Your task to perform on an android device: stop showing notifications on the lock screen Image 0: 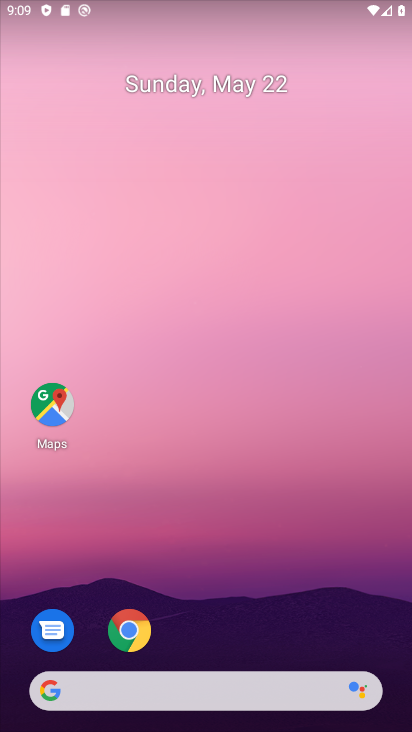
Step 0: drag from (400, 704) to (372, 277)
Your task to perform on an android device: stop showing notifications on the lock screen Image 1: 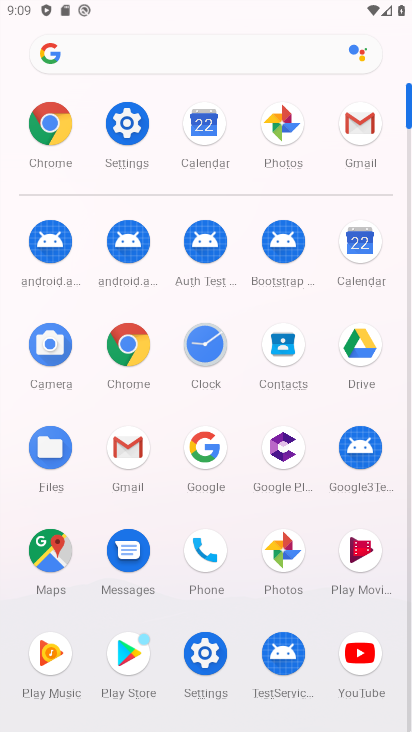
Step 1: click (139, 133)
Your task to perform on an android device: stop showing notifications on the lock screen Image 2: 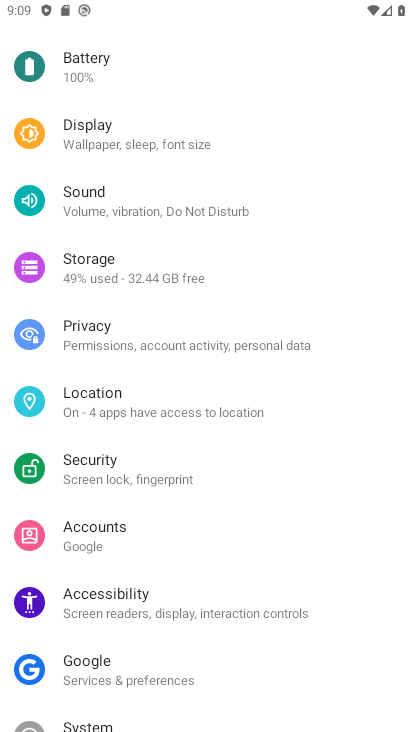
Step 2: drag from (325, 143) to (362, 688)
Your task to perform on an android device: stop showing notifications on the lock screen Image 3: 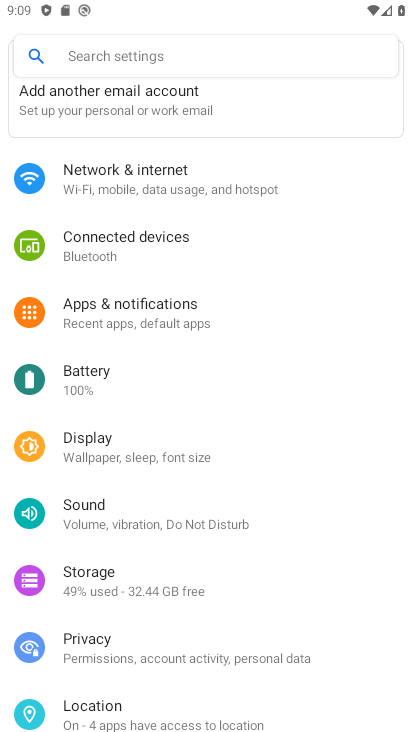
Step 3: click (105, 315)
Your task to perform on an android device: stop showing notifications on the lock screen Image 4: 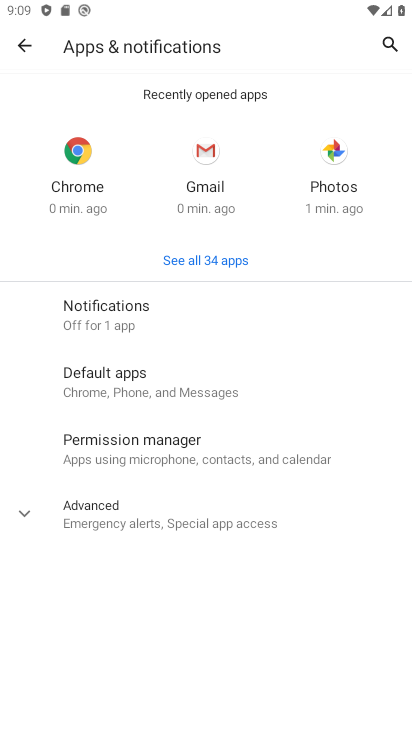
Step 4: click (100, 311)
Your task to perform on an android device: stop showing notifications on the lock screen Image 5: 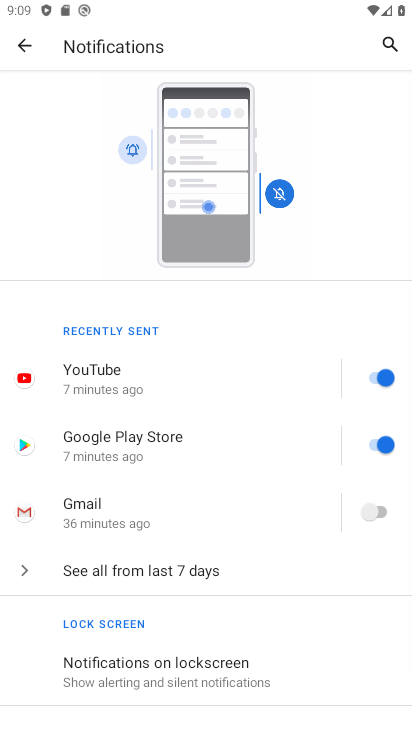
Step 5: drag from (296, 682) to (293, 282)
Your task to perform on an android device: stop showing notifications on the lock screen Image 6: 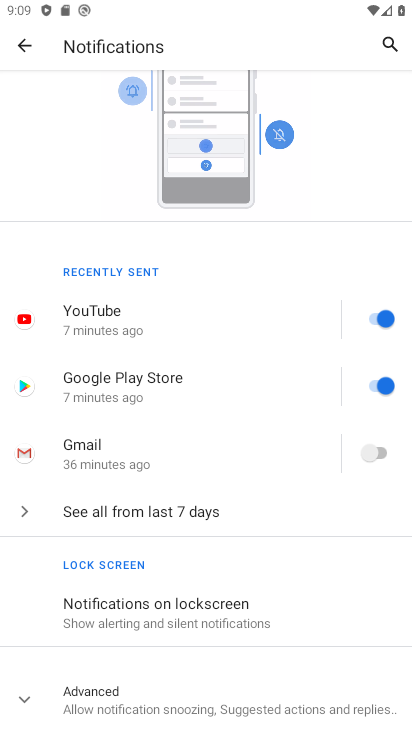
Step 6: click (93, 599)
Your task to perform on an android device: stop showing notifications on the lock screen Image 7: 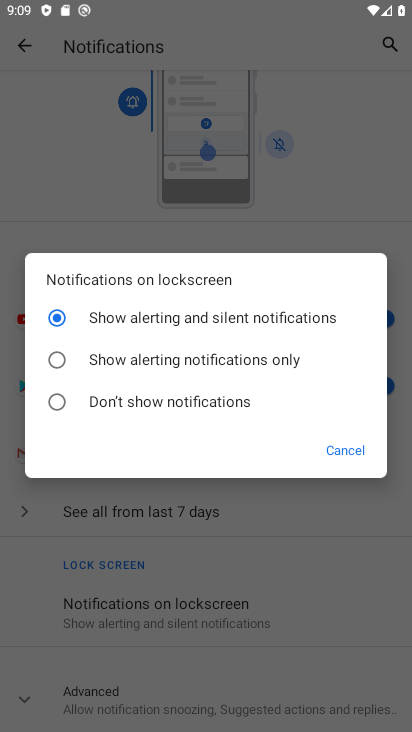
Step 7: click (51, 401)
Your task to perform on an android device: stop showing notifications on the lock screen Image 8: 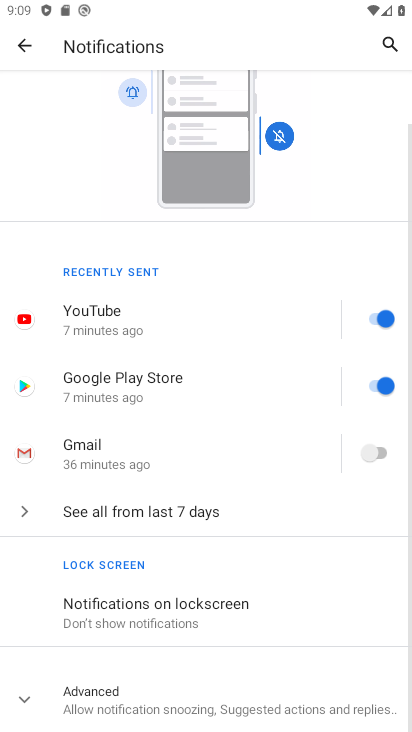
Step 8: task complete